Your task to perform on an android device: Go to display settings Image 0: 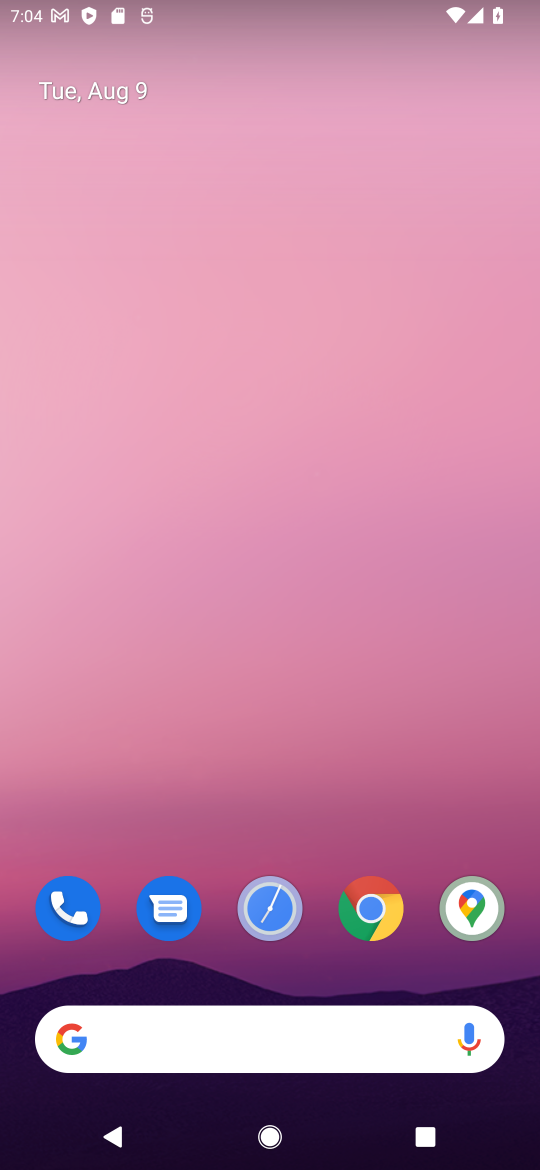
Step 0: drag from (311, 992) to (303, 74)
Your task to perform on an android device: Go to display settings Image 1: 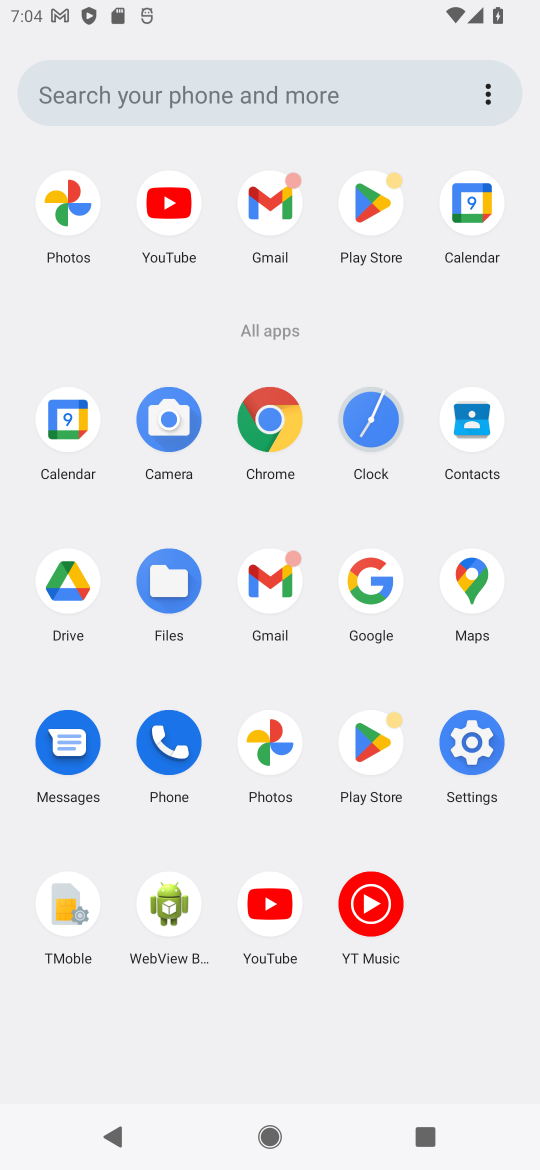
Step 1: click (473, 739)
Your task to perform on an android device: Go to display settings Image 2: 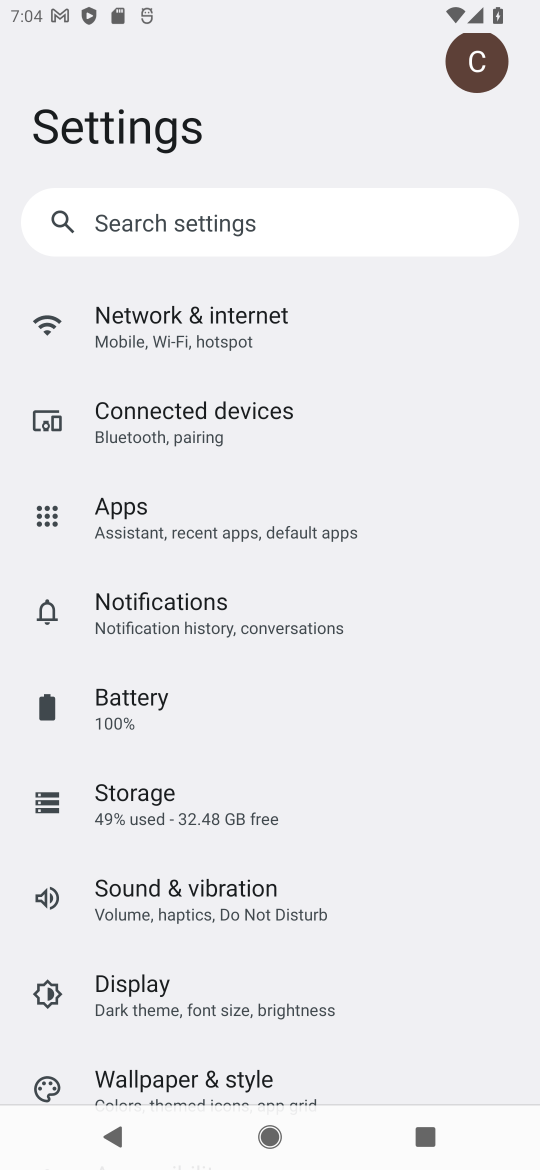
Step 2: click (141, 986)
Your task to perform on an android device: Go to display settings Image 3: 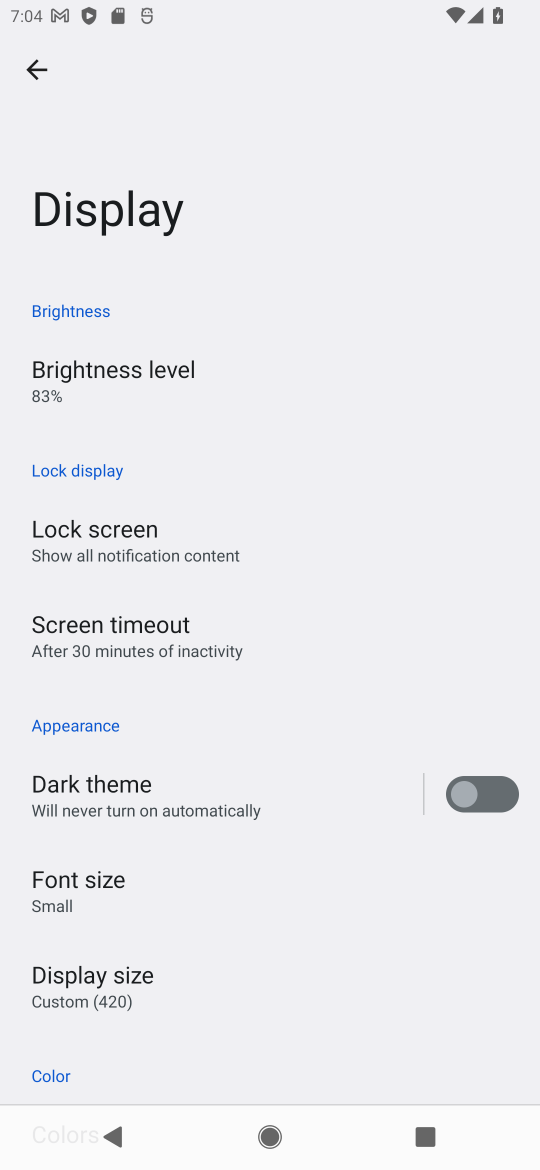
Step 3: task complete